Your task to perform on an android device: Show the shopping cart on amazon.com. Search for "dell alienware" on amazon.com, select the first entry, and add it to the cart. Image 0: 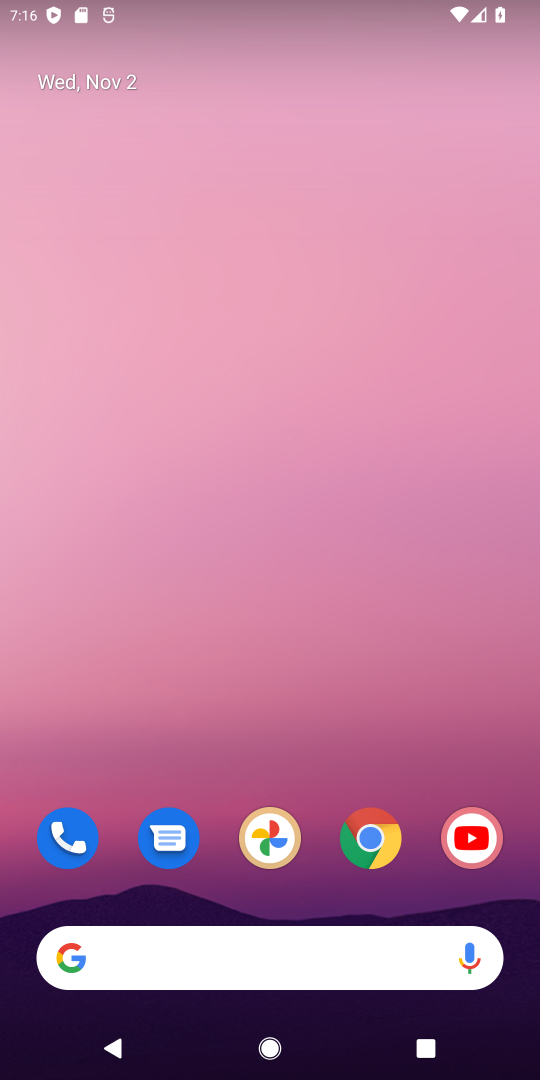
Step 0: click (385, 845)
Your task to perform on an android device: Show the shopping cart on amazon.com. Search for "dell alienware" on amazon.com, select the first entry, and add it to the cart. Image 1: 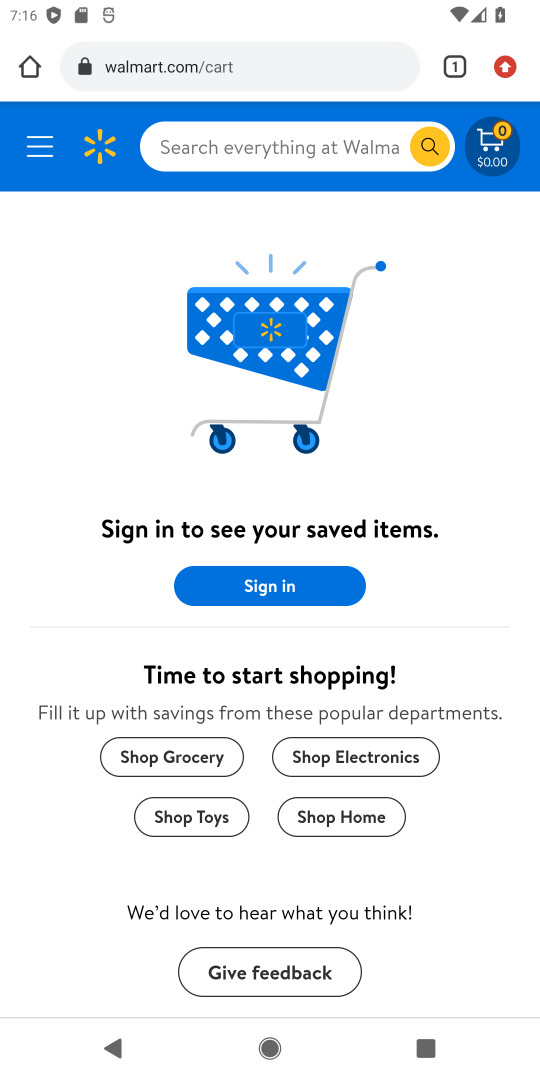
Step 1: click (258, 52)
Your task to perform on an android device: Show the shopping cart on amazon.com. Search for "dell alienware" on amazon.com, select the first entry, and add it to the cart. Image 2: 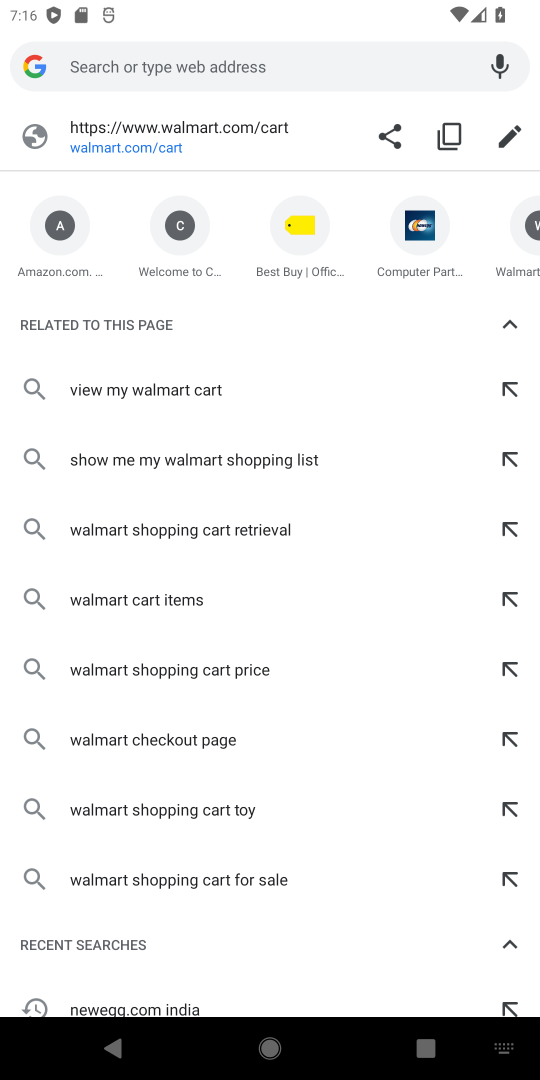
Step 2: type "amazon.com"
Your task to perform on an android device: Show the shopping cart on amazon.com. Search for "dell alienware" on amazon.com, select the first entry, and add it to the cart. Image 3: 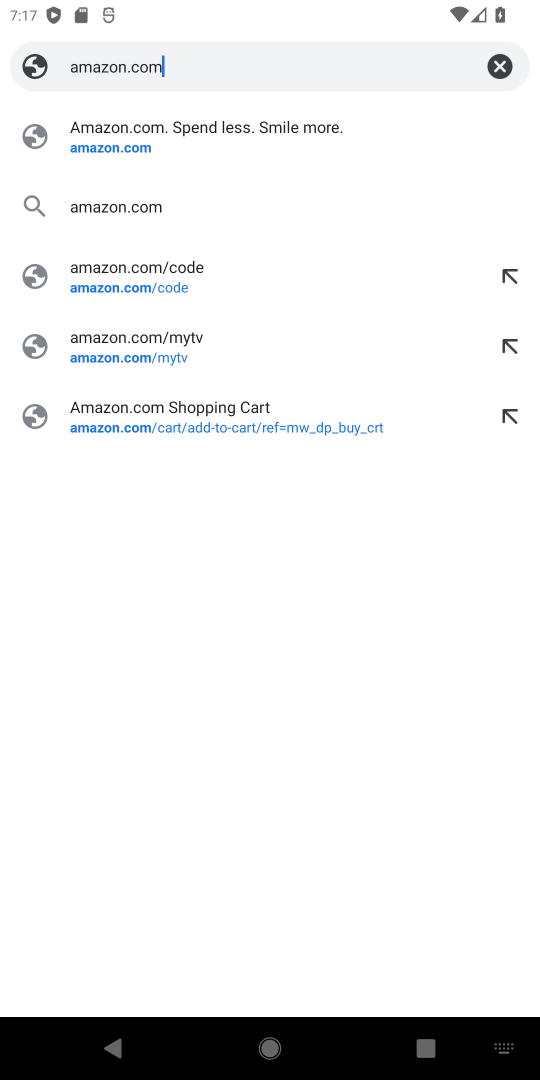
Step 3: press enter
Your task to perform on an android device: Show the shopping cart on amazon.com. Search for "dell alienware" on amazon.com, select the first entry, and add it to the cart. Image 4: 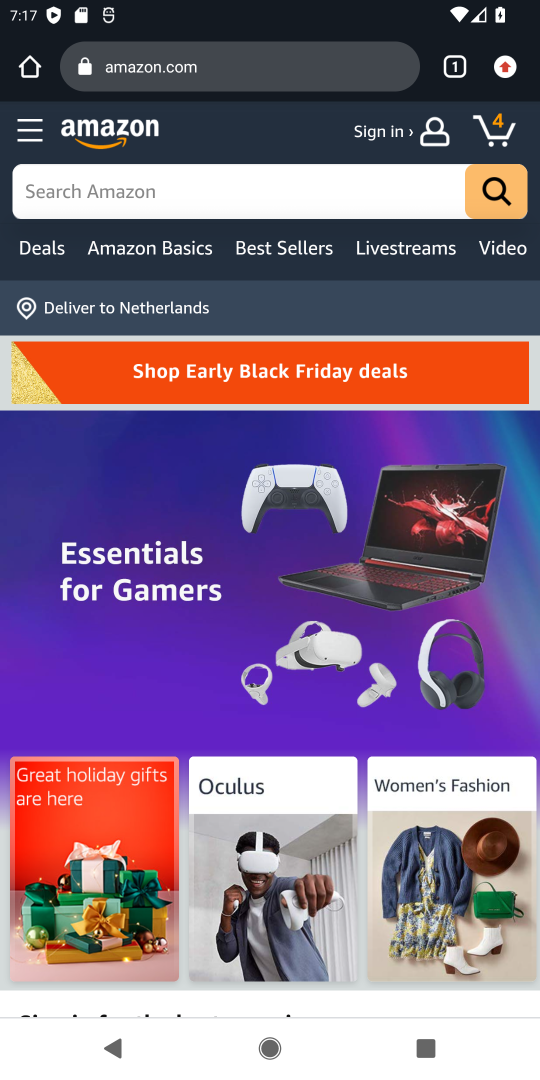
Step 4: click (488, 122)
Your task to perform on an android device: Show the shopping cart on amazon.com. Search for "dell alienware" on amazon.com, select the first entry, and add it to the cart. Image 5: 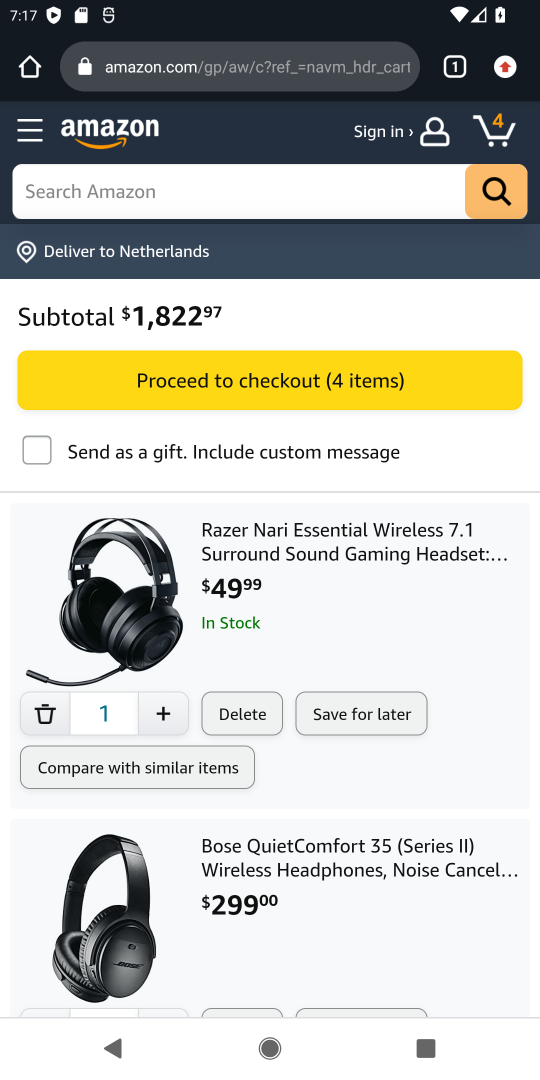
Step 5: click (39, 710)
Your task to perform on an android device: Show the shopping cart on amazon.com. Search for "dell alienware" on amazon.com, select the first entry, and add it to the cart. Image 6: 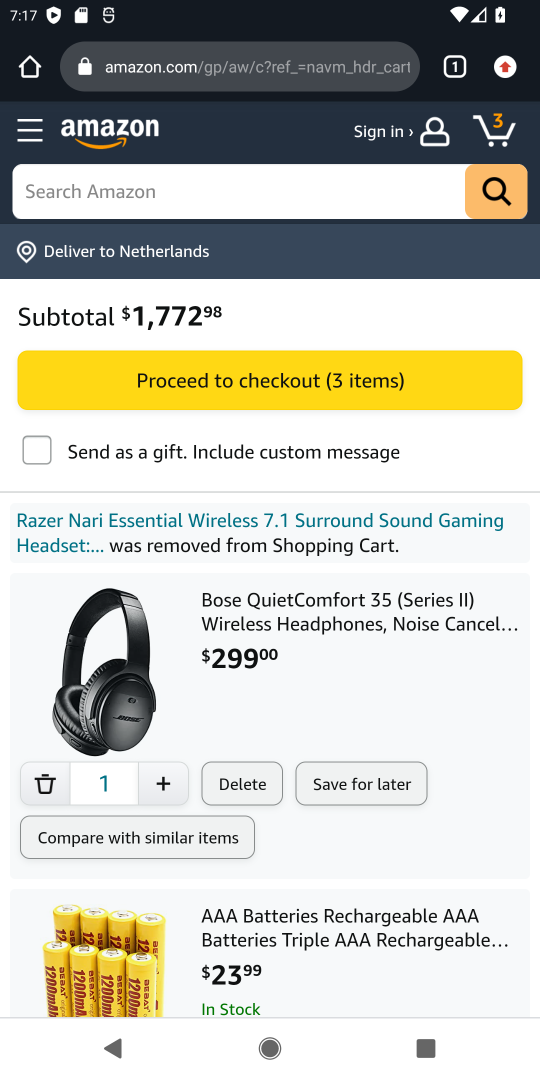
Step 6: click (46, 790)
Your task to perform on an android device: Show the shopping cart on amazon.com. Search for "dell alienware" on amazon.com, select the first entry, and add it to the cart. Image 7: 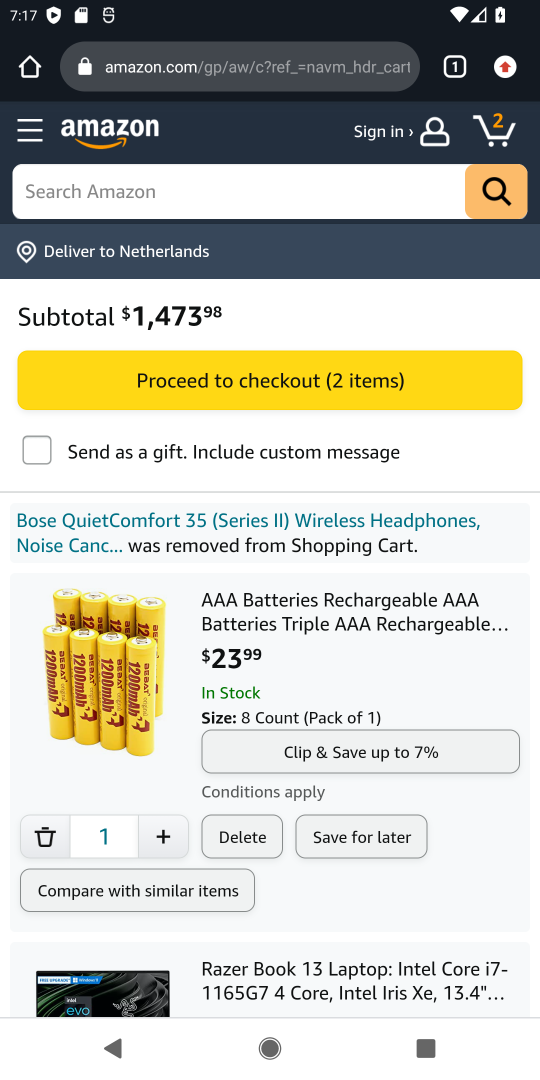
Step 7: click (43, 839)
Your task to perform on an android device: Show the shopping cart on amazon.com. Search for "dell alienware" on amazon.com, select the first entry, and add it to the cart. Image 8: 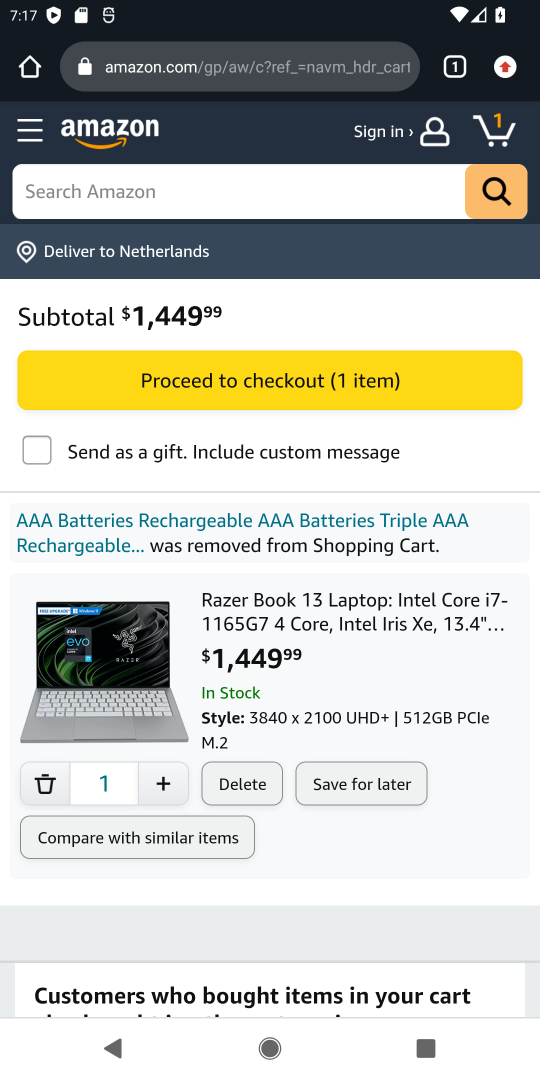
Step 8: click (45, 785)
Your task to perform on an android device: Show the shopping cart on amazon.com. Search for "dell alienware" on amazon.com, select the first entry, and add it to the cart. Image 9: 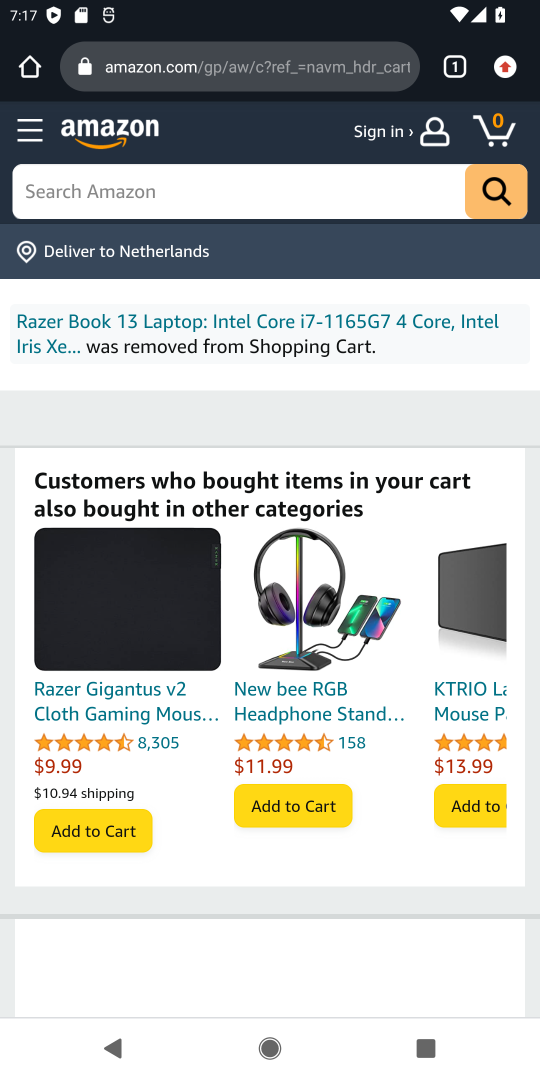
Step 9: click (218, 196)
Your task to perform on an android device: Show the shopping cart on amazon.com. Search for "dell alienware" on amazon.com, select the first entry, and add it to the cart. Image 10: 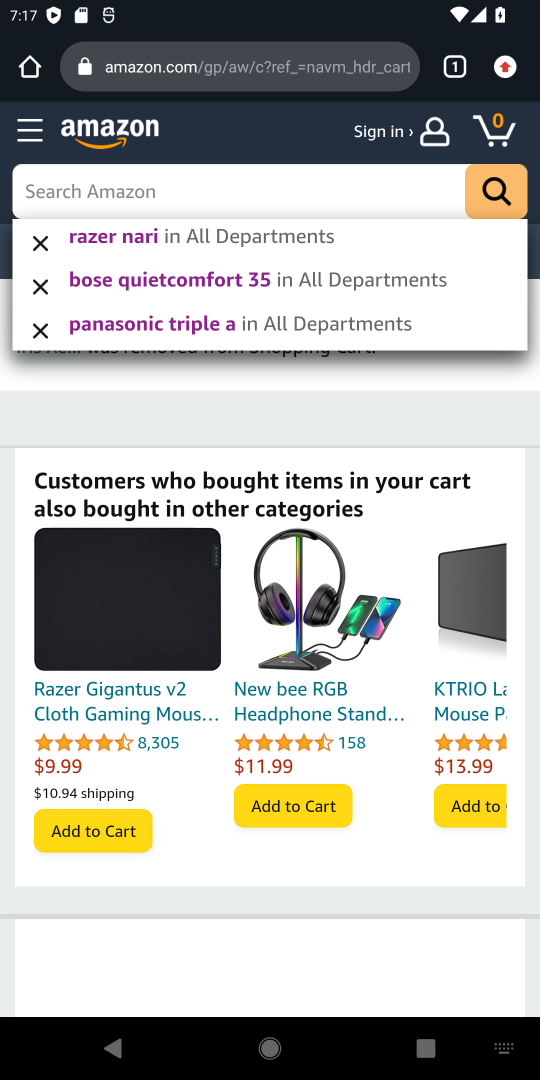
Step 10: type "dell alienware"
Your task to perform on an android device: Show the shopping cart on amazon.com. Search for "dell alienware" on amazon.com, select the first entry, and add it to the cart. Image 11: 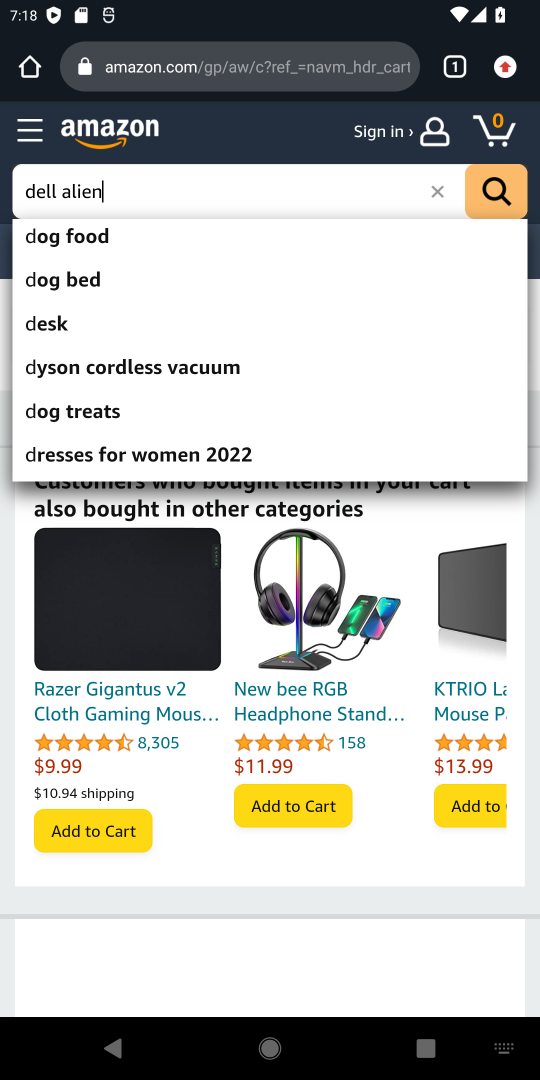
Step 11: type ""
Your task to perform on an android device: Show the shopping cart on amazon.com. Search for "dell alienware" on amazon.com, select the first entry, and add it to the cart. Image 12: 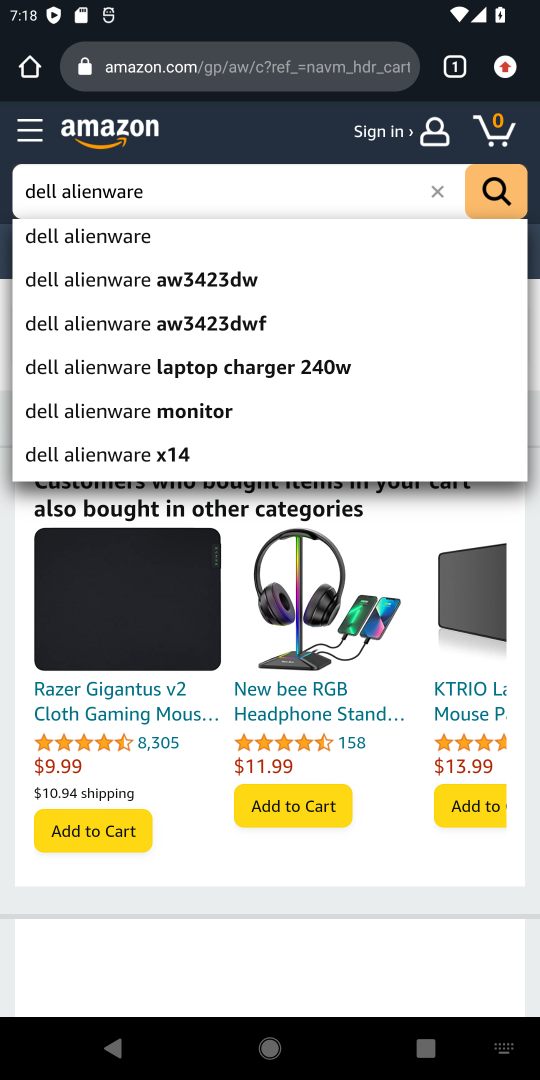
Step 12: press enter
Your task to perform on an android device: Show the shopping cart on amazon.com. Search for "dell alienware" on amazon.com, select the first entry, and add it to the cart. Image 13: 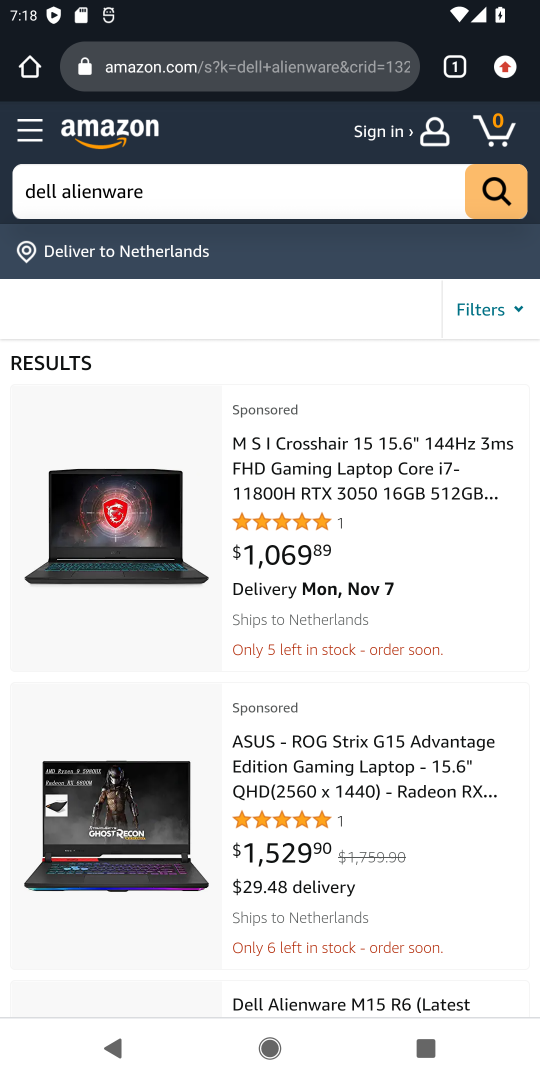
Step 13: drag from (422, 716) to (411, 464)
Your task to perform on an android device: Show the shopping cart on amazon.com. Search for "dell alienware" on amazon.com, select the first entry, and add it to the cart. Image 14: 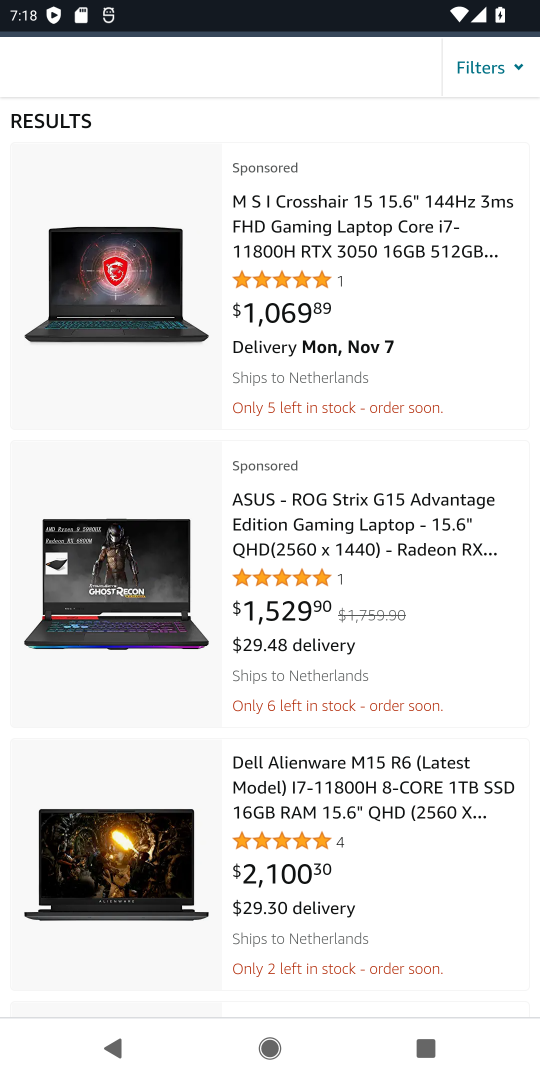
Step 14: click (331, 775)
Your task to perform on an android device: Show the shopping cart on amazon.com. Search for "dell alienware" on amazon.com, select the first entry, and add it to the cart. Image 15: 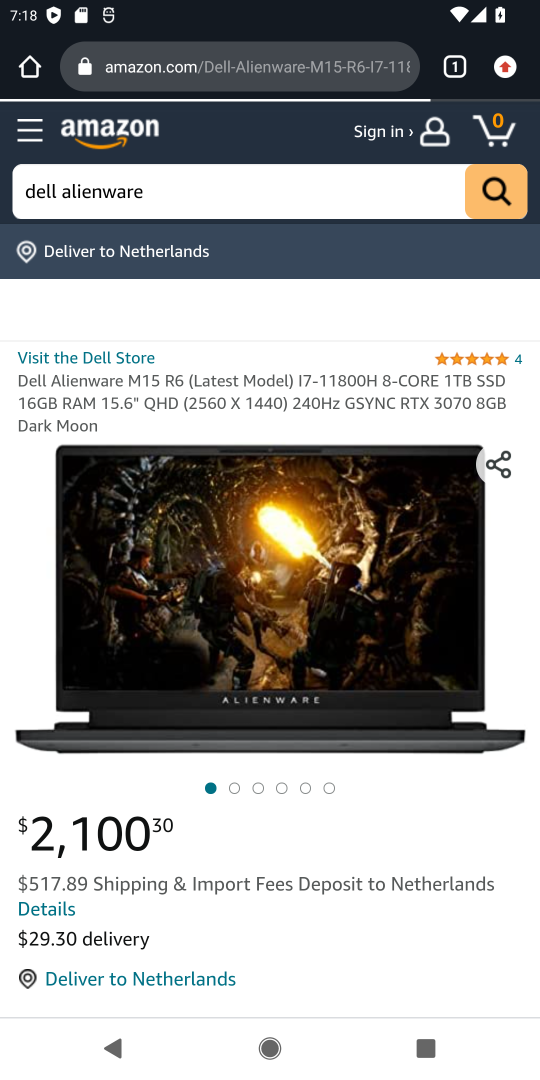
Step 15: drag from (379, 927) to (336, 512)
Your task to perform on an android device: Show the shopping cart on amazon.com. Search for "dell alienware" on amazon.com, select the first entry, and add it to the cart. Image 16: 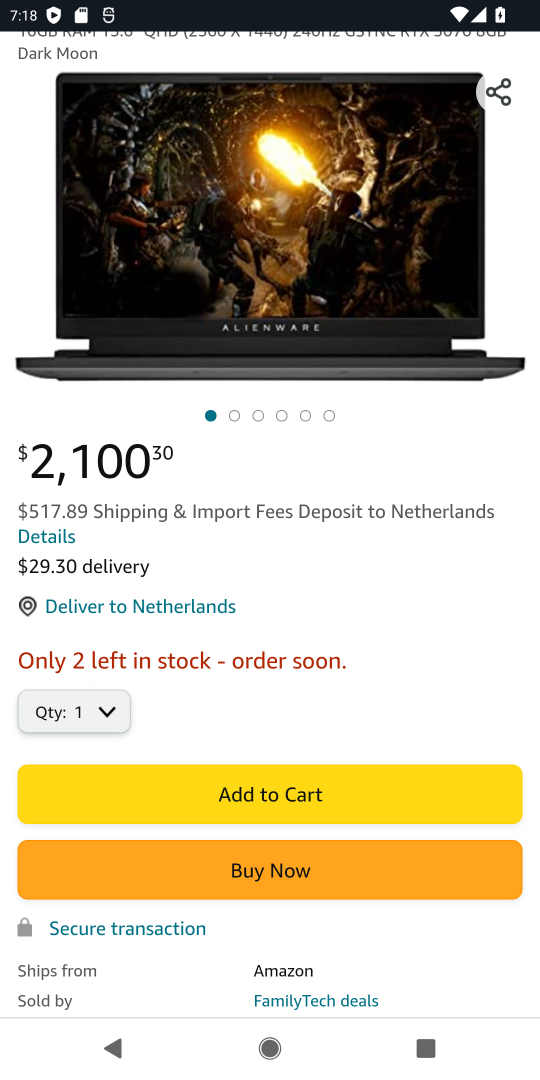
Step 16: click (342, 791)
Your task to perform on an android device: Show the shopping cart on amazon.com. Search for "dell alienware" on amazon.com, select the first entry, and add it to the cart. Image 17: 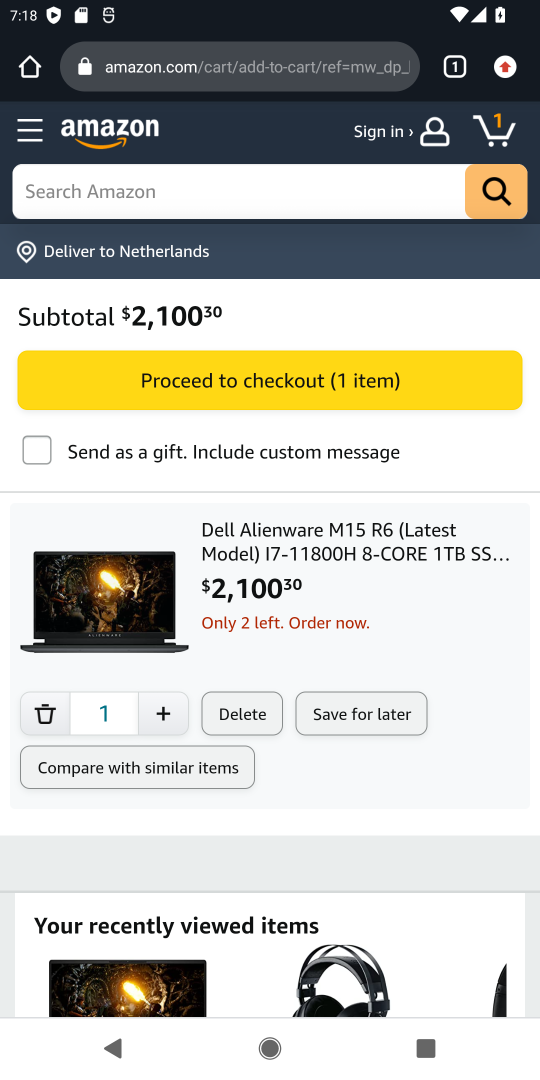
Step 17: click (404, 393)
Your task to perform on an android device: Show the shopping cart on amazon.com. Search for "dell alienware" on amazon.com, select the first entry, and add it to the cart. Image 18: 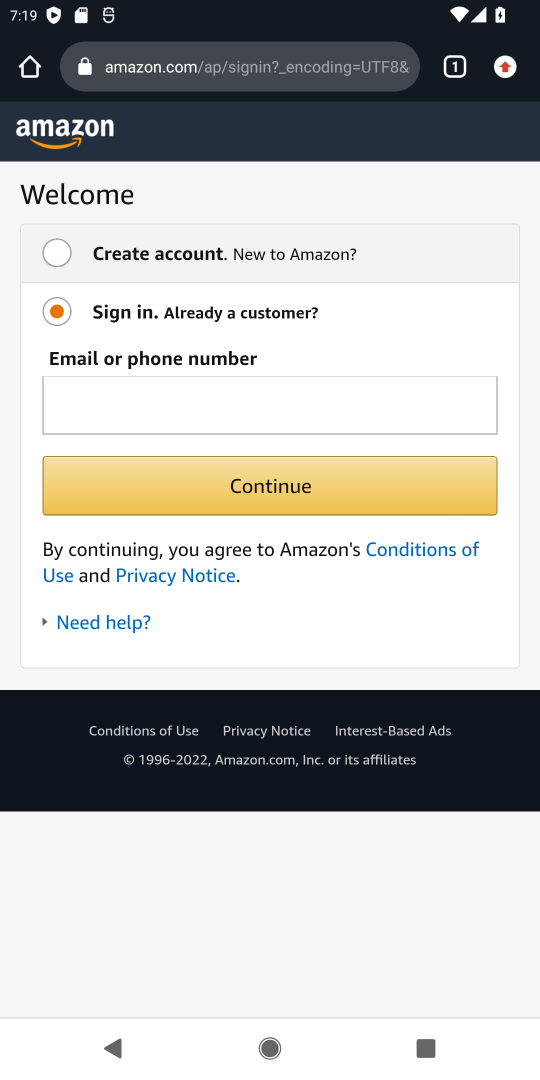
Step 18: task complete